Your task to perform on an android device: Open CNN.com Image 0: 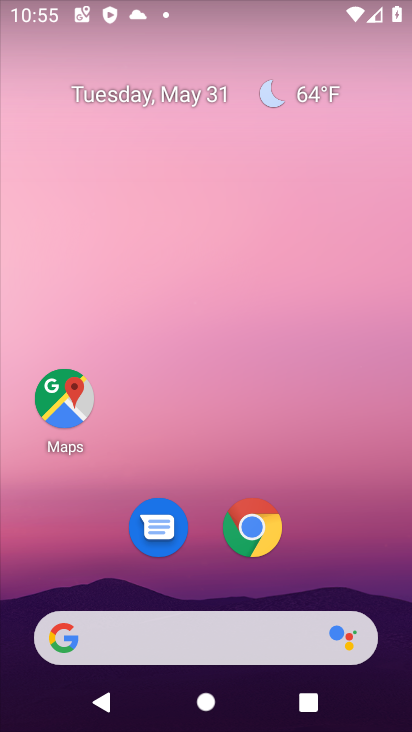
Step 0: click (272, 636)
Your task to perform on an android device: Open CNN.com Image 1: 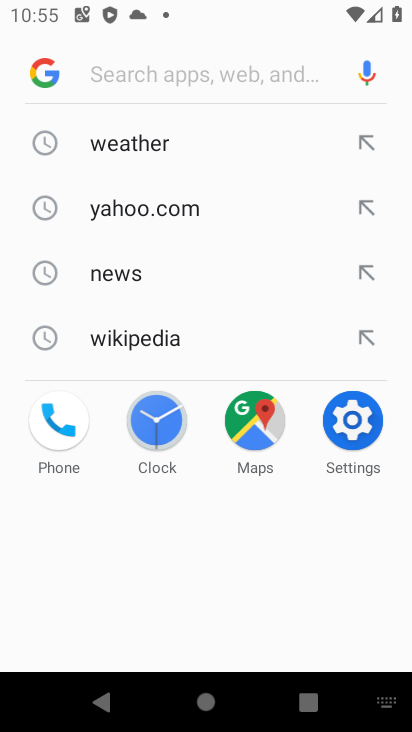
Step 1: type "cnn.com"
Your task to perform on an android device: Open CNN.com Image 2: 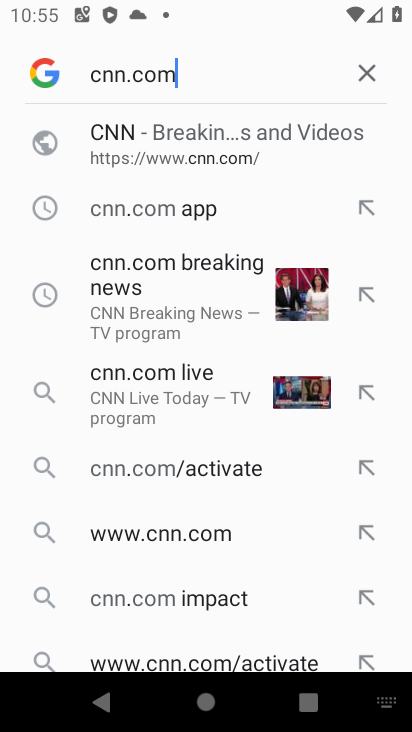
Step 2: click (208, 152)
Your task to perform on an android device: Open CNN.com Image 3: 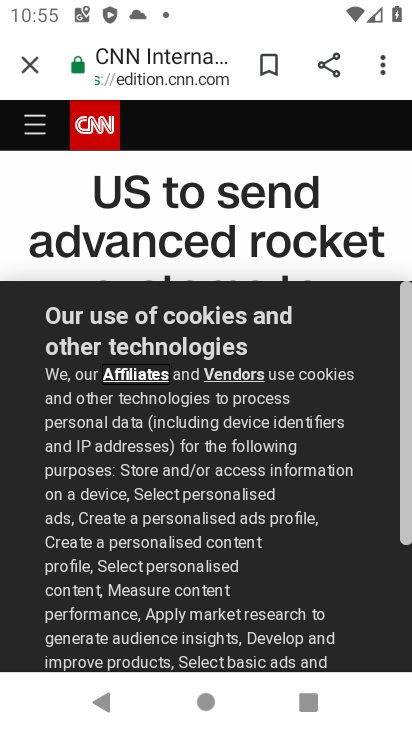
Step 3: task complete